Your task to perform on an android device: Go to settings Image 0: 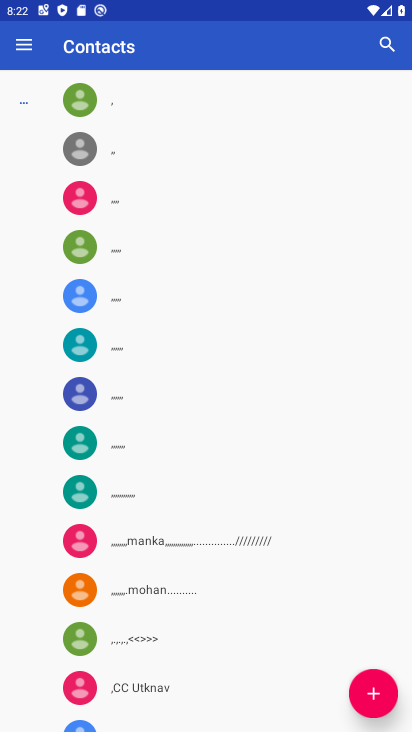
Step 0: press home button
Your task to perform on an android device: Go to settings Image 1: 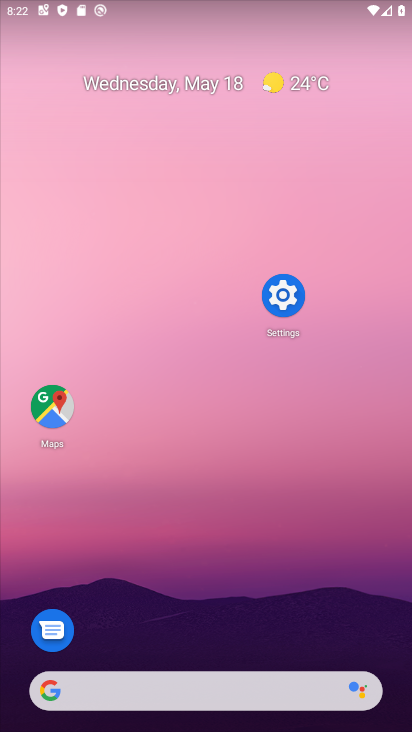
Step 1: click (272, 297)
Your task to perform on an android device: Go to settings Image 2: 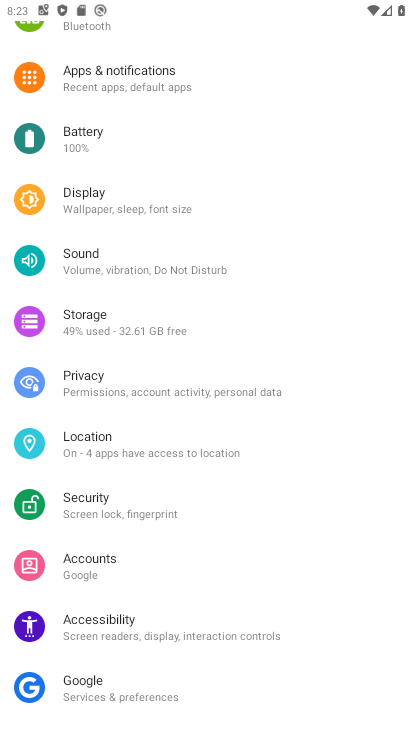
Step 2: task complete